Your task to perform on an android device: Search for "asus zenbook" on costco, select the first entry, and add it to the cart. Image 0: 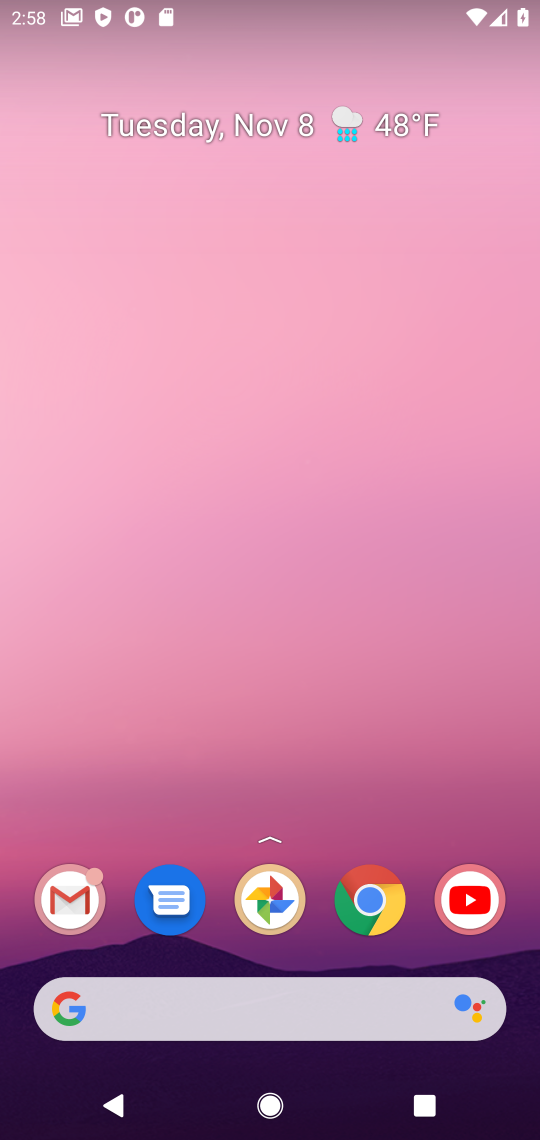
Step 0: click (371, 911)
Your task to perform on an android device: Search for "asus zenbook" on costco, select the first entry, and add it to the cart. Image 1: 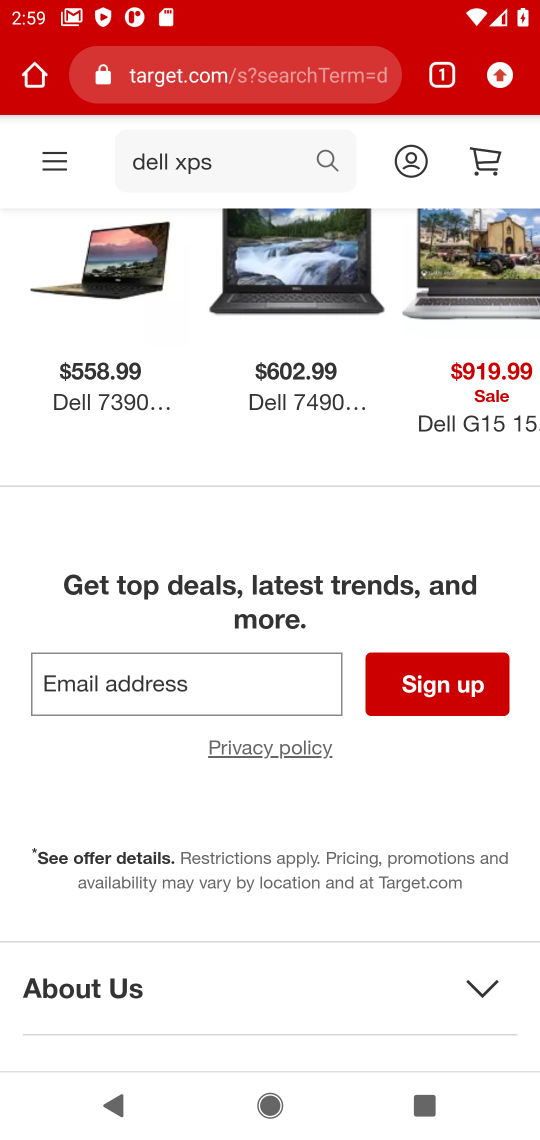
Step 1: click (298, 79)
Your task to perform on an android device: Search for "asus zenbook" on costco, select the first entry, and add it to the cart. Image 2: 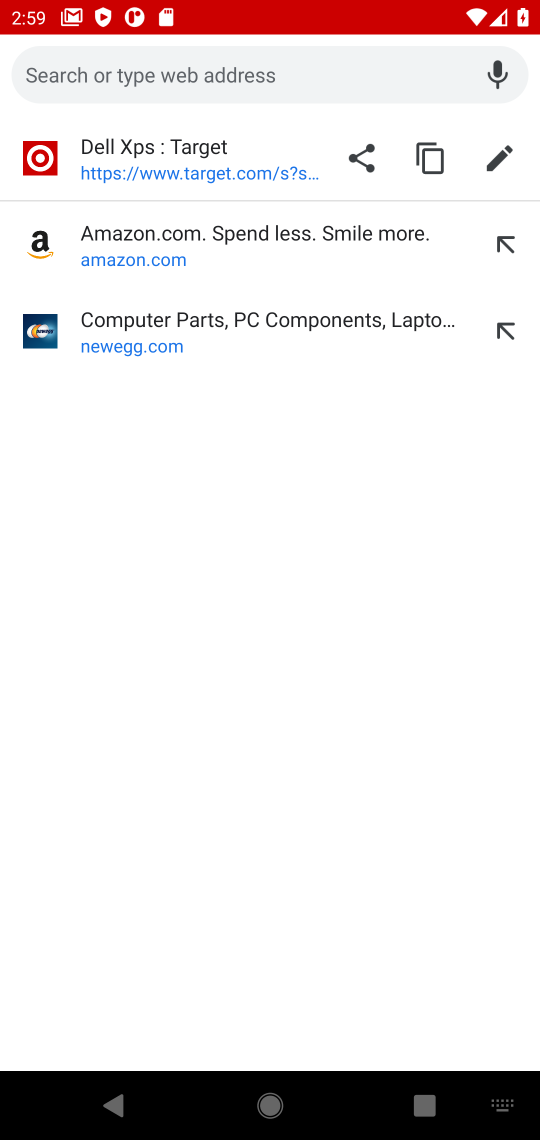
Step 2: type "costco"
Your task to perform on an android device: Search for "asus zenbook" on costco, select the first entry, and add it to the cart. Image 3: 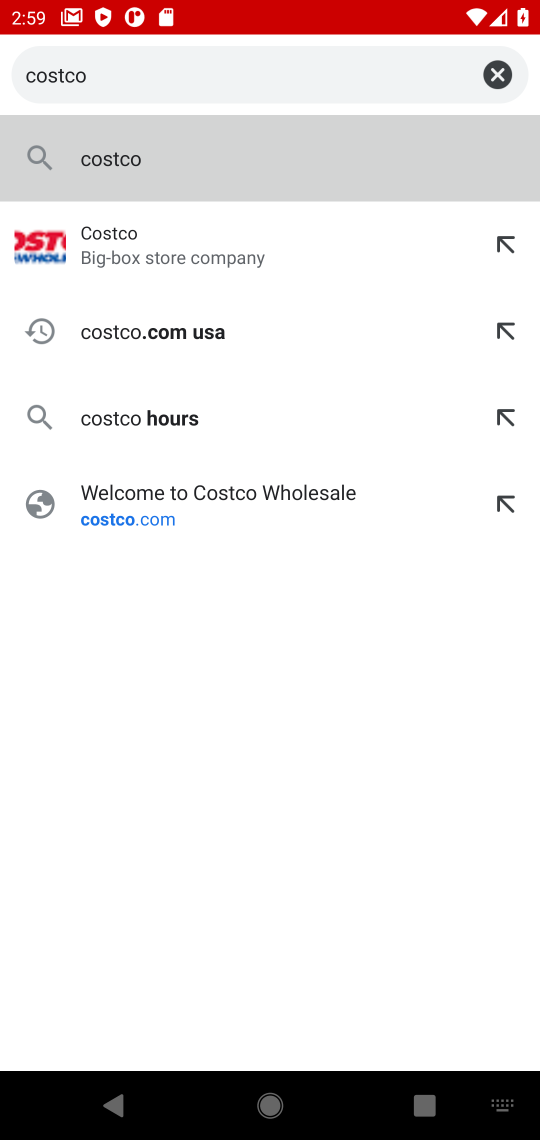
Step 3: press enter
Your task to perform on an android device: Search for "asus zenbook" on costco, select the first entry, and add it to the cart. Image 4: 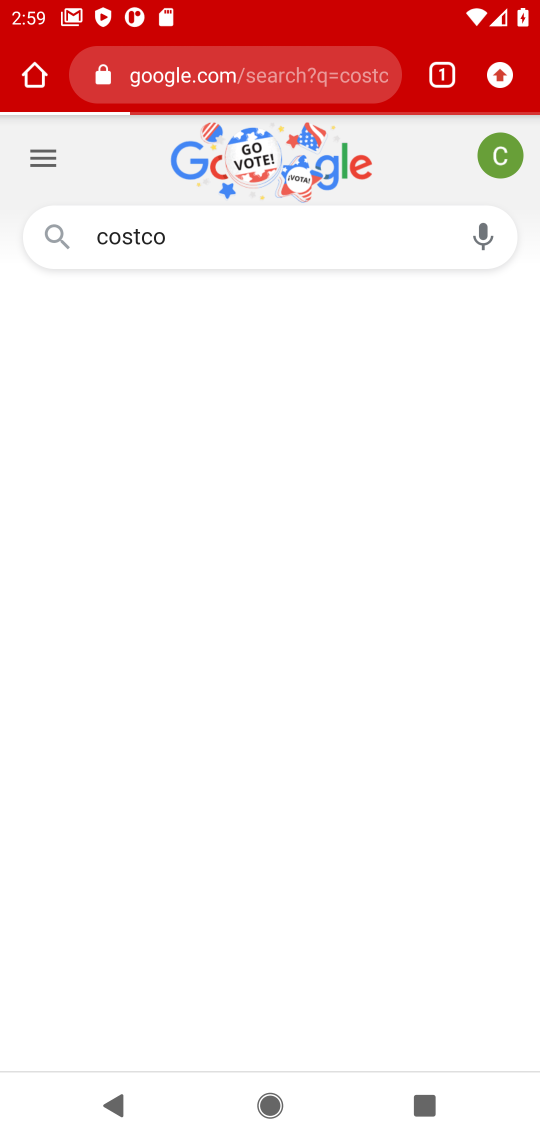
Step 4: click (185, 248)
Your task to perform on an android device: Search for "asus zenbook" on costco, select the first entry, and add it to the cart. Image 5: 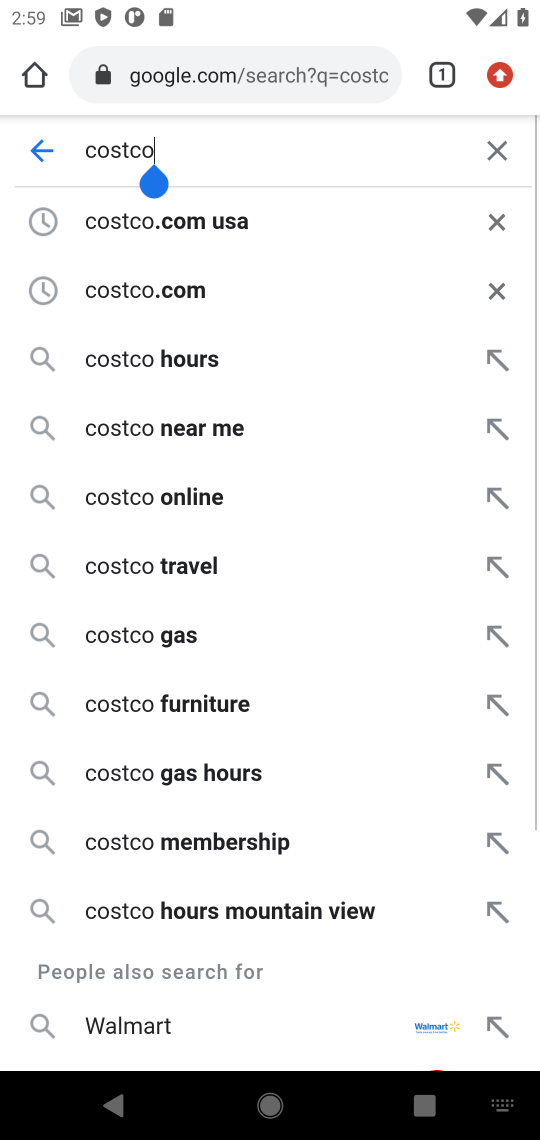
Step 5: click (172, 526)
Your task to perform on an android device: Search for "asus zenbook" on costco, select the first entry, and add it to the cart. Image 6: 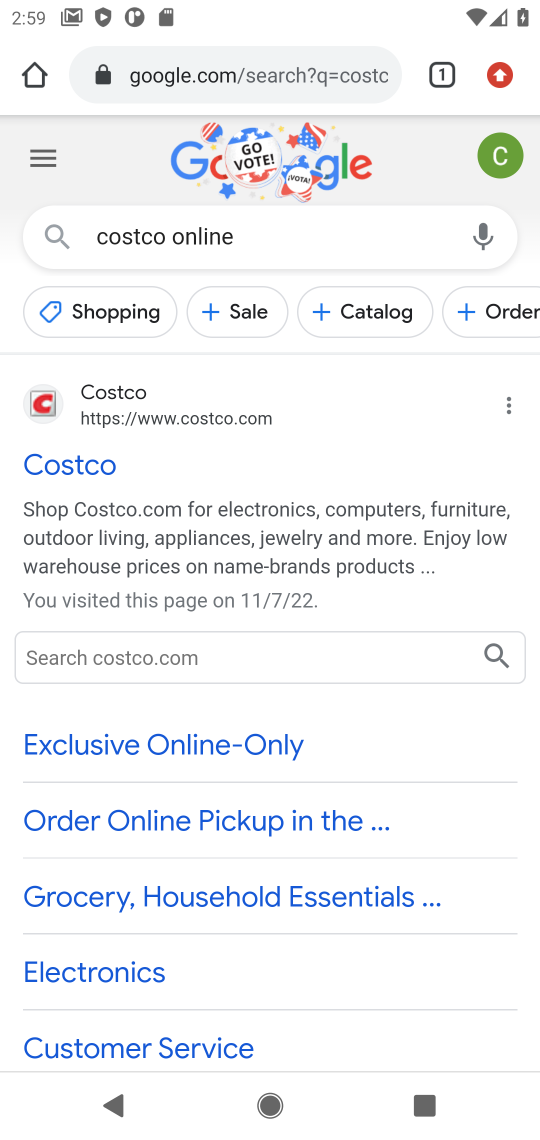
Step 6: click (202, 417)
Your task to perform on an android device: Search for "asus zenbook" on costco, select the first entry, and add it to the cart. Image 7: 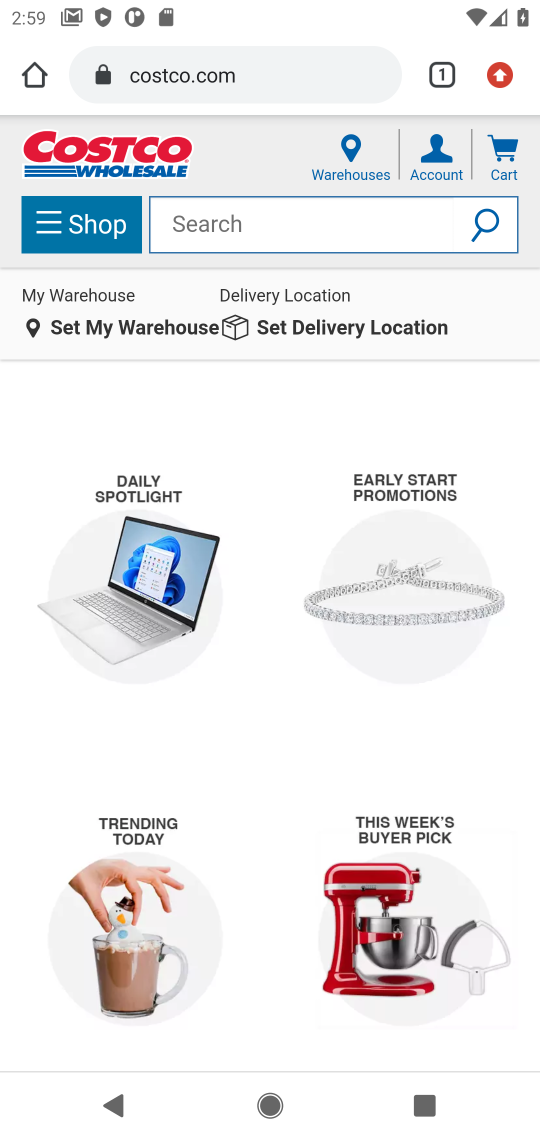
Step 7: click (245, 226)
Your task to perform on an android device: Search for "asus zenbook" on costco, select the first entry, and add it to the cart. Image 8: 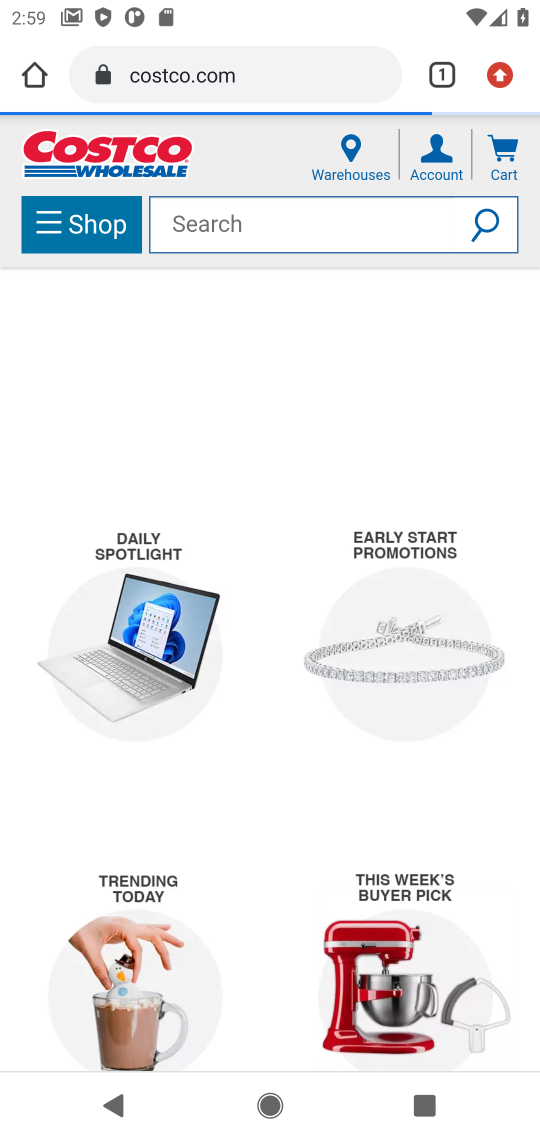
Step 8: type "asus zenbook"
Your task to perform on an android device: Search for "asus zenbook" on costco, select the first entry, and add it to the cart. Image 9: 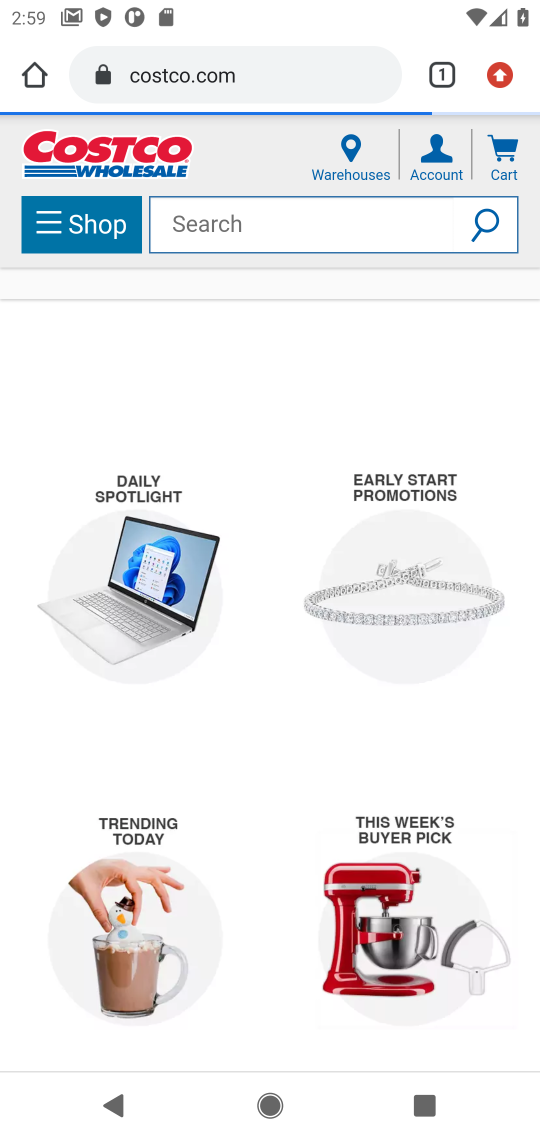
Step 9: press enter
Your task to perform on an android device: Search for "asus zenbook" on costco, select the first entry, and add it to the cart. Image 10: 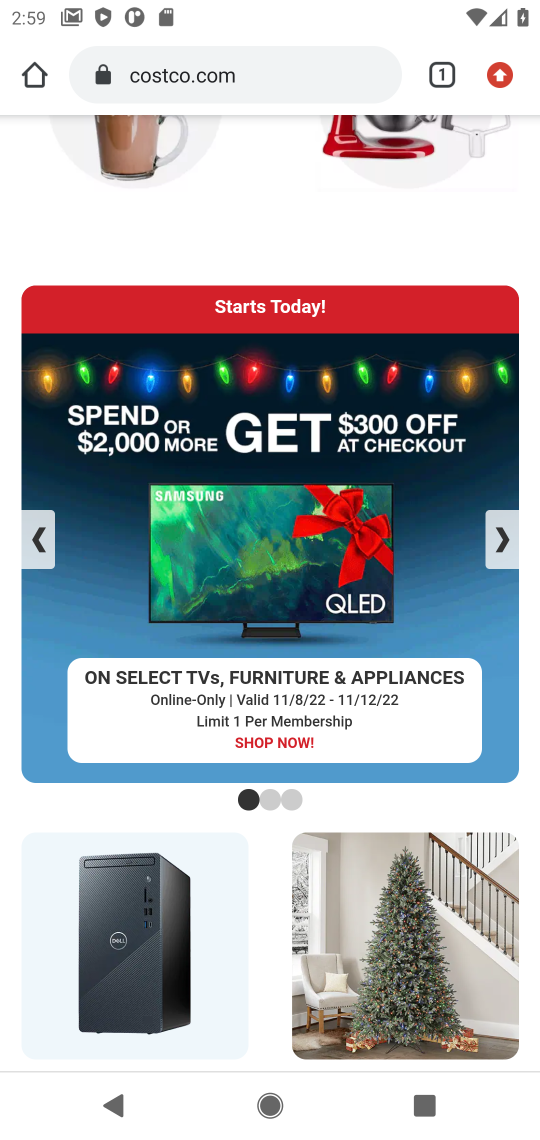
Step 10: drag from (324, 225) to (403, 1008)
Your task to perform on an android device: Search for "asus zenbook" on costco, select the first entry, and add it to the cart. Image 11: 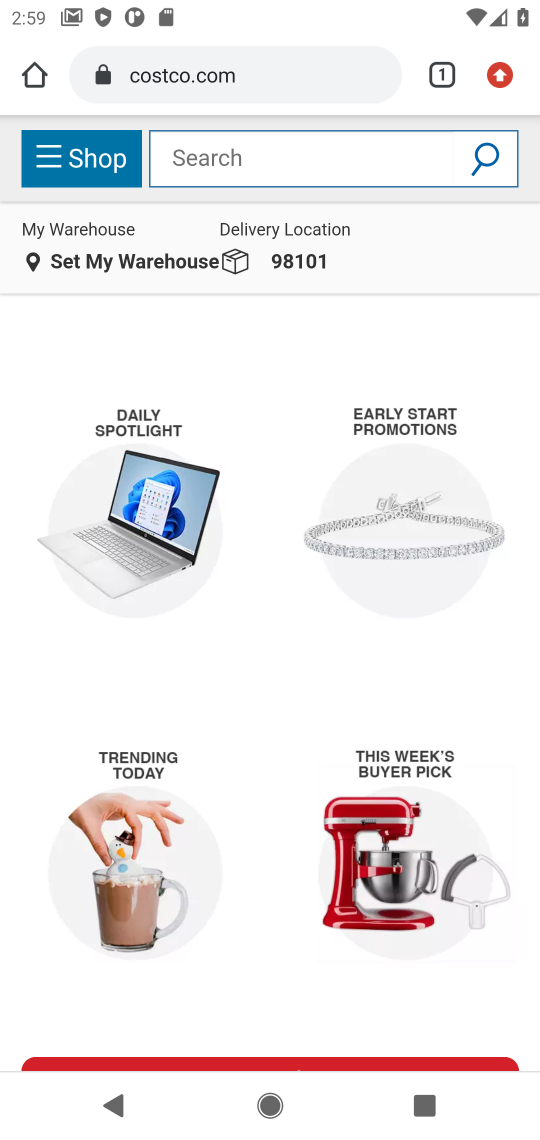
Step 11: click (320, 160)
Your task to perform on an android device: Search for "asus zenbook" on costco, select the first entry, and add it to the cart. Image 12: 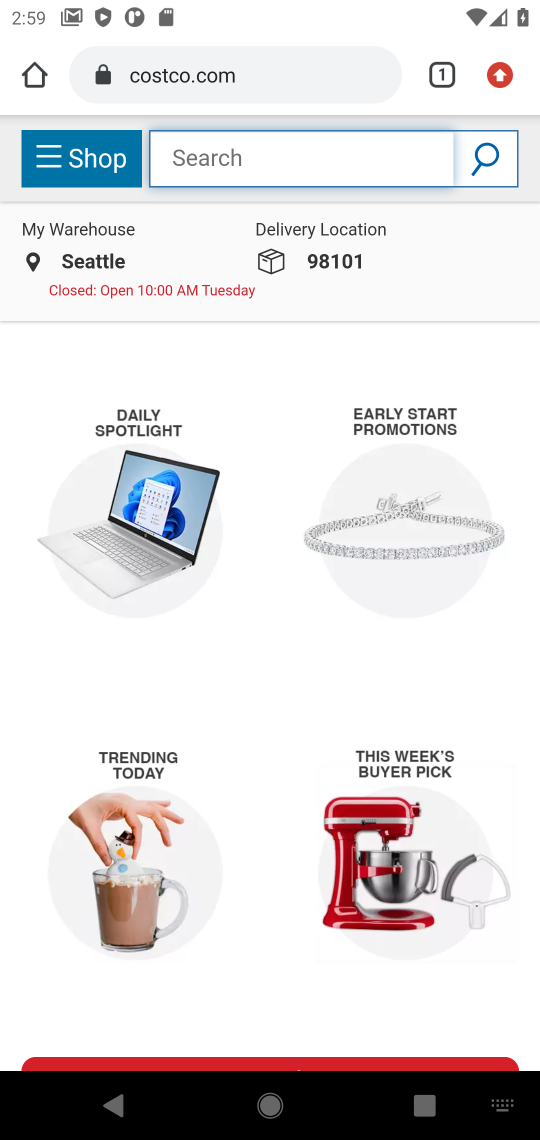
Step 12: type "asus zenbook"
Your task to perform on an android device: Search for "asus zenbook" on costco, select the first entry, and add it to the cart. Image 13: 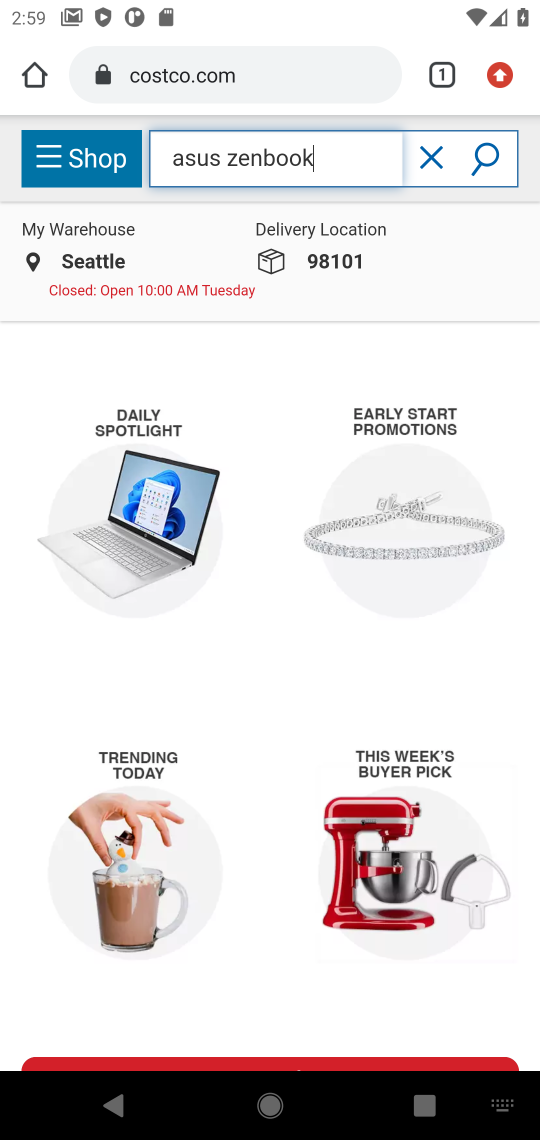
Step 13: press enter
Your task to perform on an android device: Search for "asus zenbook" on costco, select the first entry, and add it to the cart. Image 14: 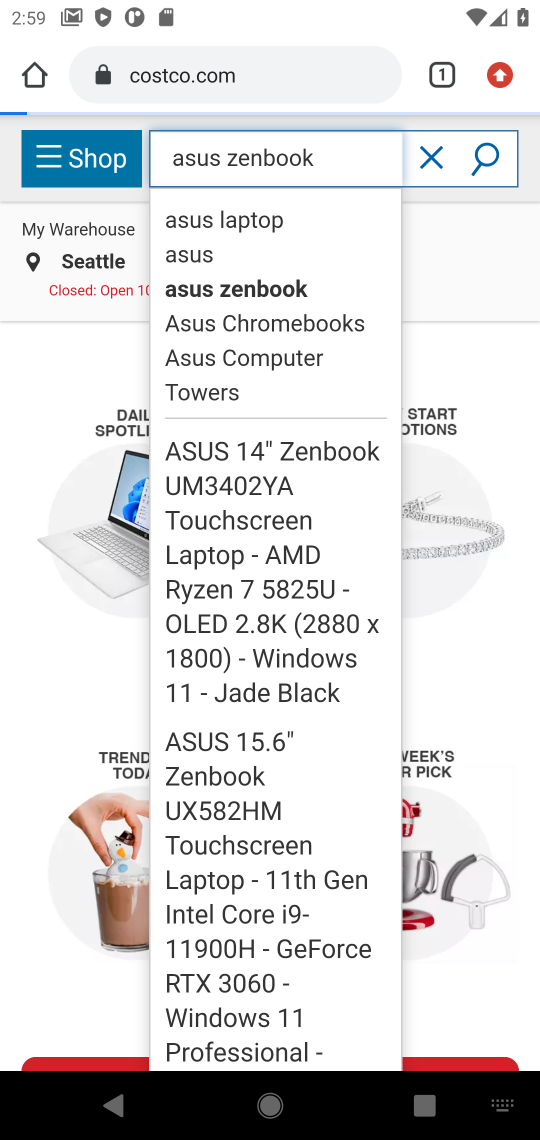
Step 14: click (480, 237)
Your task to perform on an android device: Search for "asus zenbook" on costco, select the first entry, and add it to the cart. Image 15: 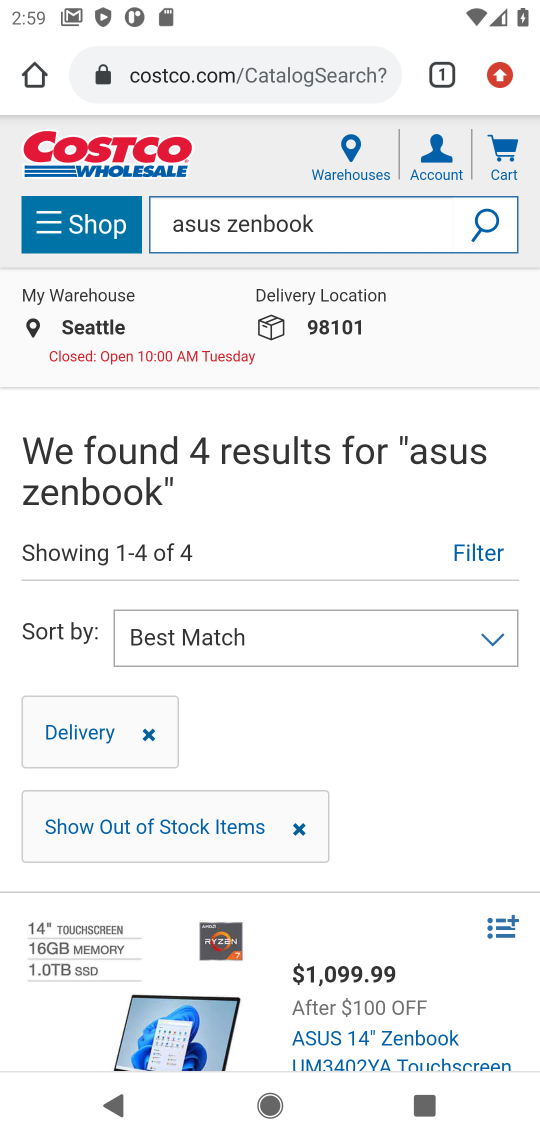
Step 15: drag from (437, 952) to (482, 490)
Your task to perform on an android device: Search for "asus zenbook" on costco, select the first entry, and add it to the cart. Image 16: 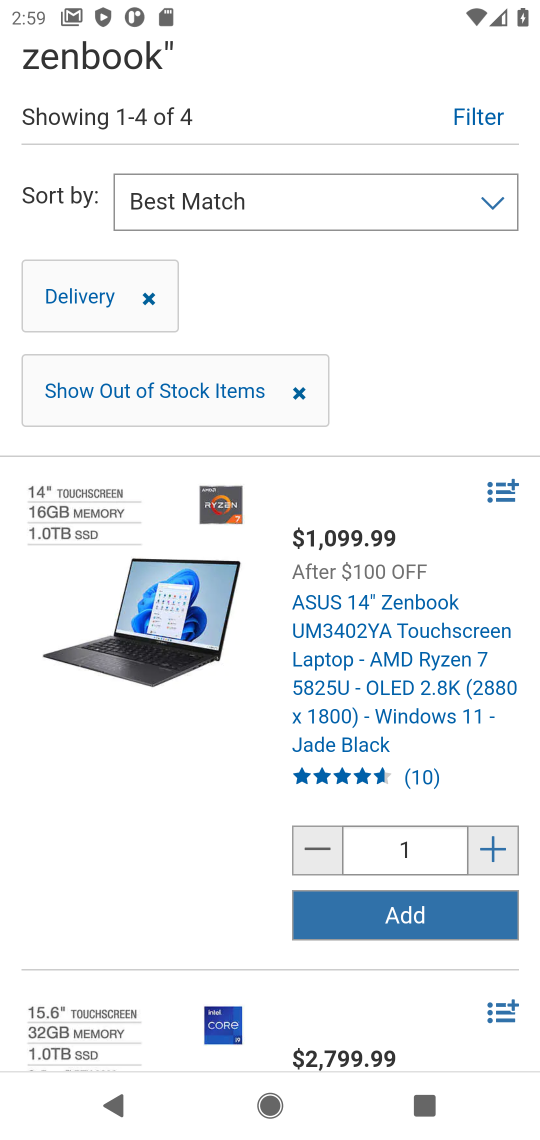
Step 16: click (187, 647)
Your task to perform on an android device: Search for "asus zenbook" on costco, select the first entry, and add it to the cart. Image 17: 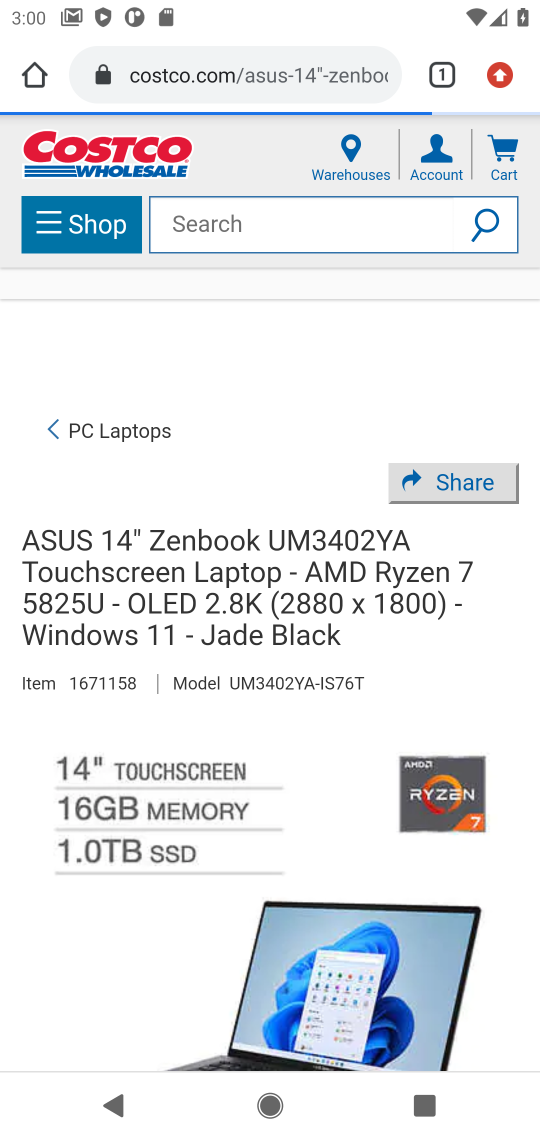
Step 17: drag from (448, 658) to (477, 209)
Your task to perform on an android device: Search for "asus zenbook" on costco, select the first entry, and add it to the cart. Image 18: 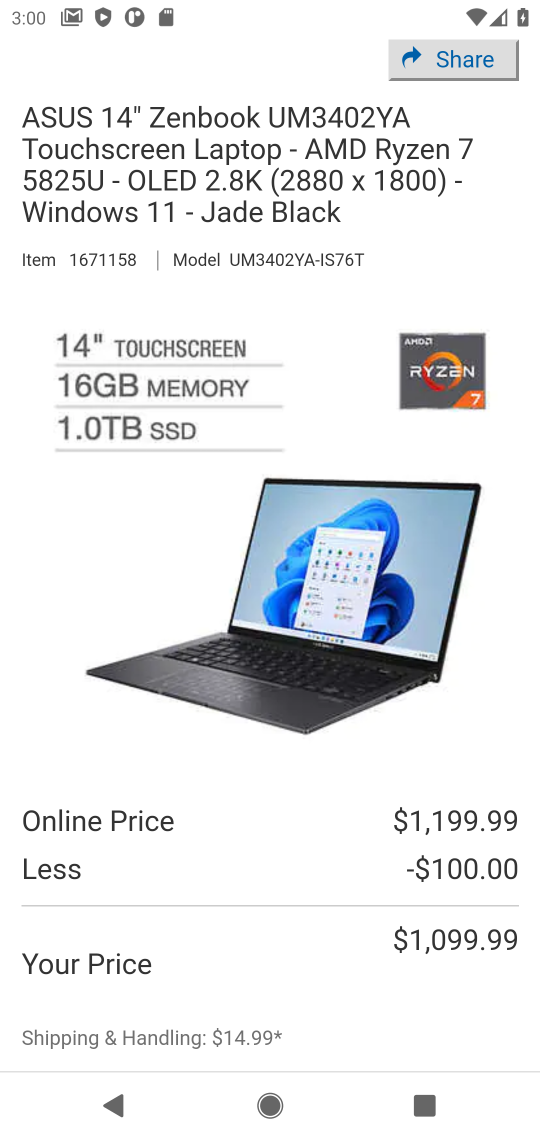
Step 18: drag from (424, 796) to (434, 193)
Your task to perform on an android device: Search for "asus zenbook" on costco, select the first entry, and add it to the cart. Image 19: 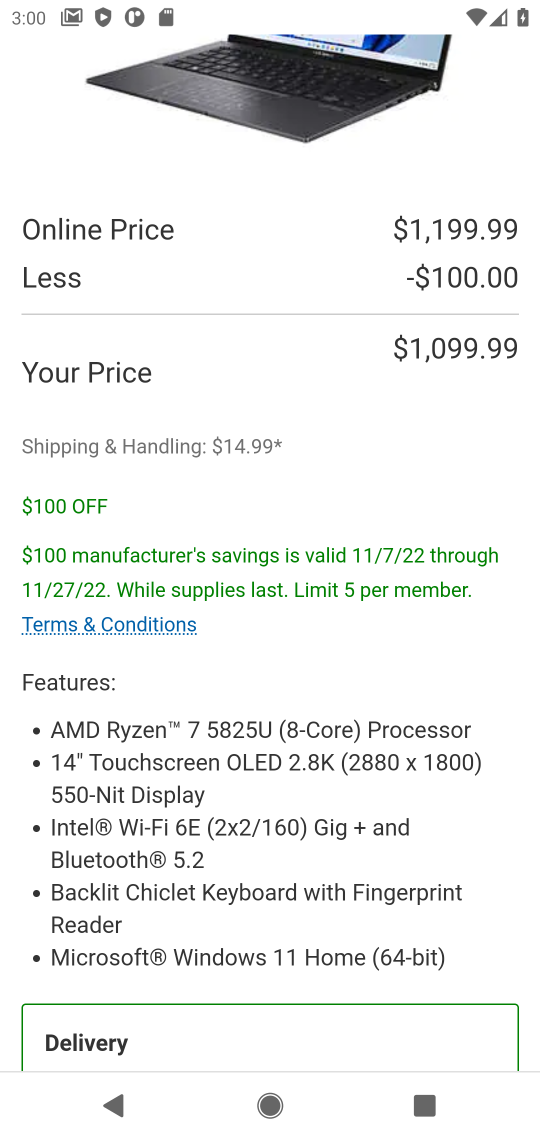
Step 19: drag from (443, 810) to (471, 250)
Your task to perform on an android device: Search for "asus zenbook" on costco, select the first entry, and add it to the cart. Image 20: 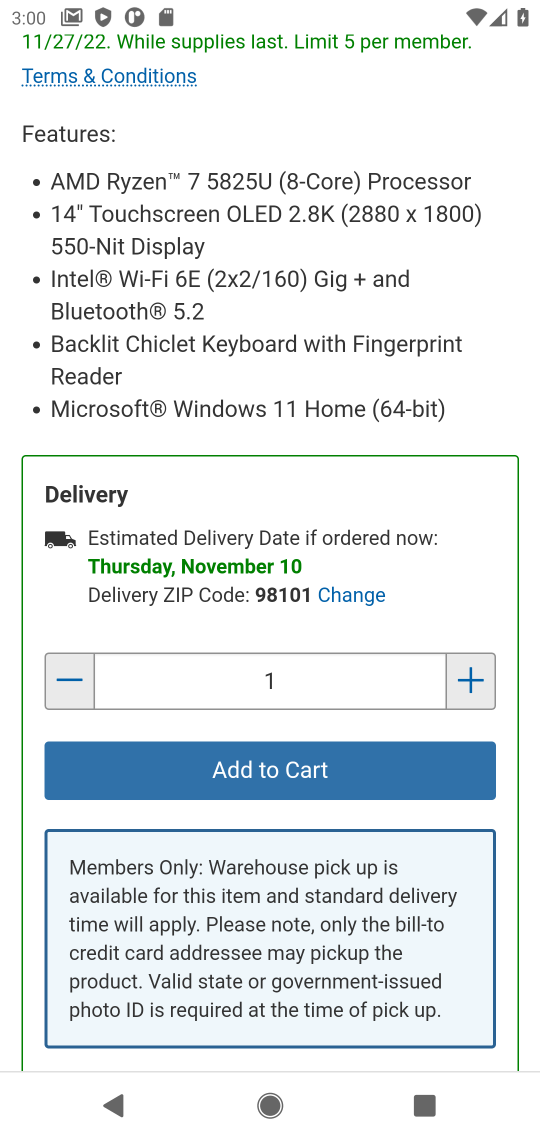
Step 20: click (327, 768)
Your task to perform on an android device: Search for "asus zenbook" on costco, select the first entry, and add it to the cart. Image 21: 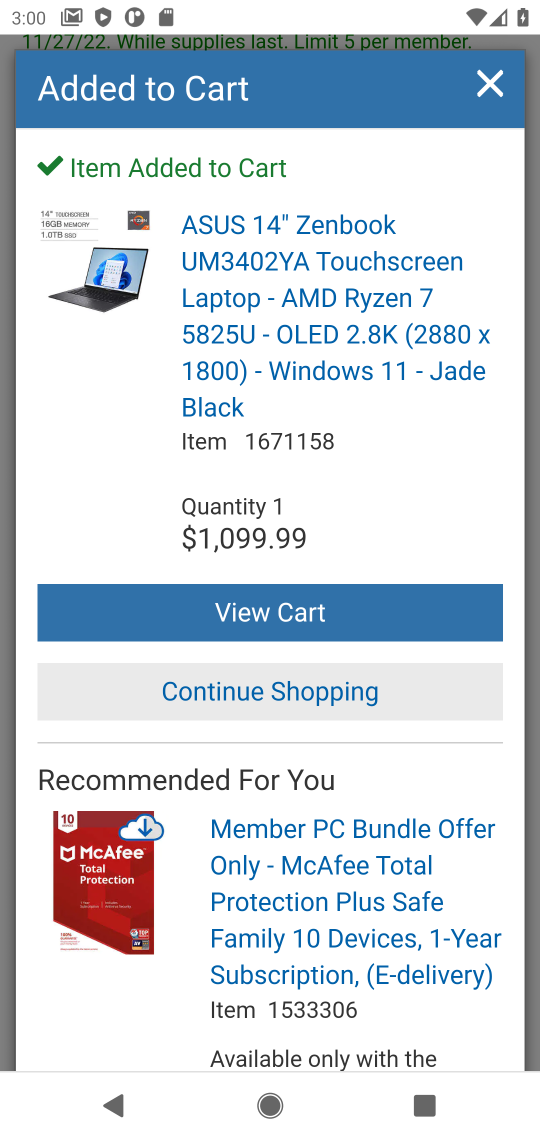
Step 21: task complete